Your task to perform on an android device: create a new album in the google photos Image 0: 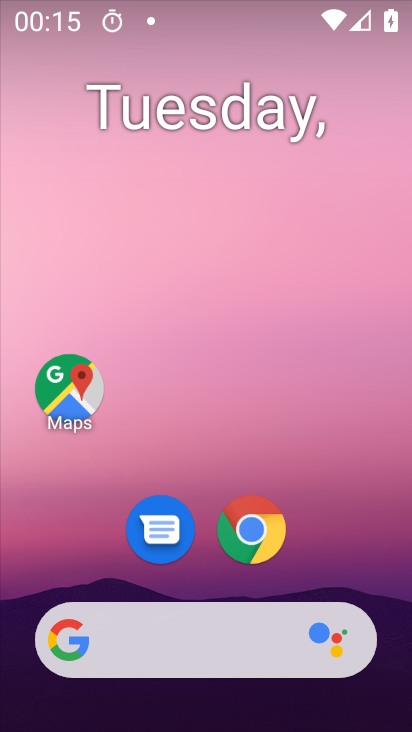
Step 0: drag from (398, 579) to (365, 68)
Your task to perform on an android device: create a new album in the google photos Image 1: 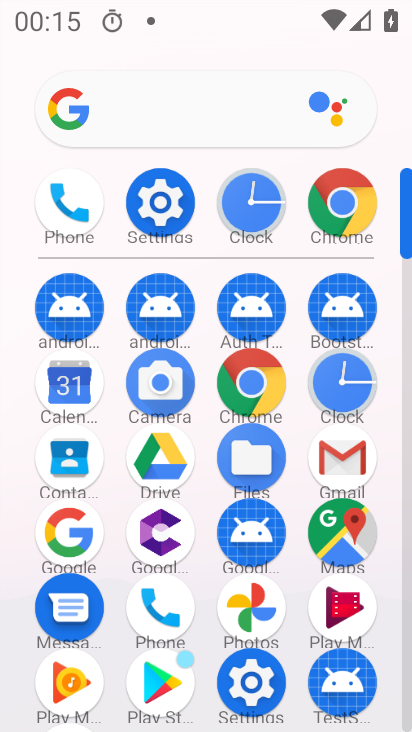
Step 1: click (269, 607)
Your task to perform on an android device: create a new album in the google photos Image 2: 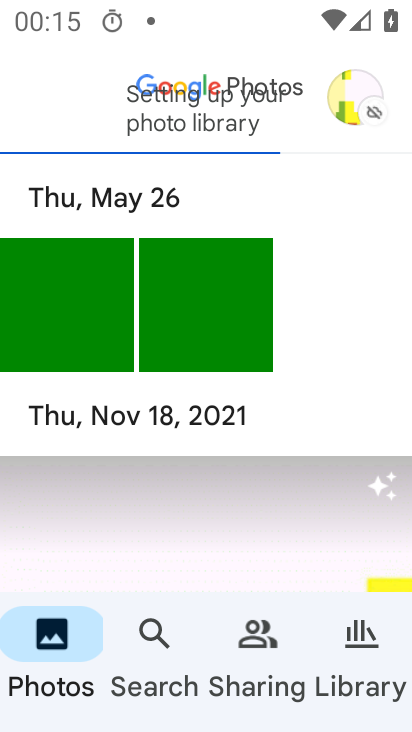
Step 2: click (152, 293)
Your task to perform on an android device: create a new album in the google photos Image 3: 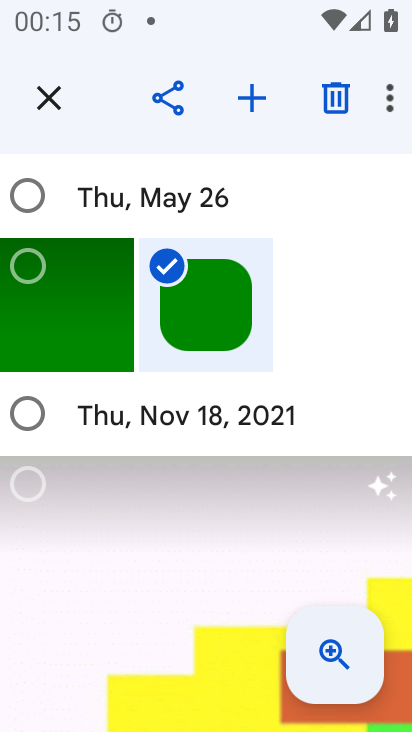
Step 3: click (56, 336)
Your task to perform on an android device: create a new album in the google photos Image 4: 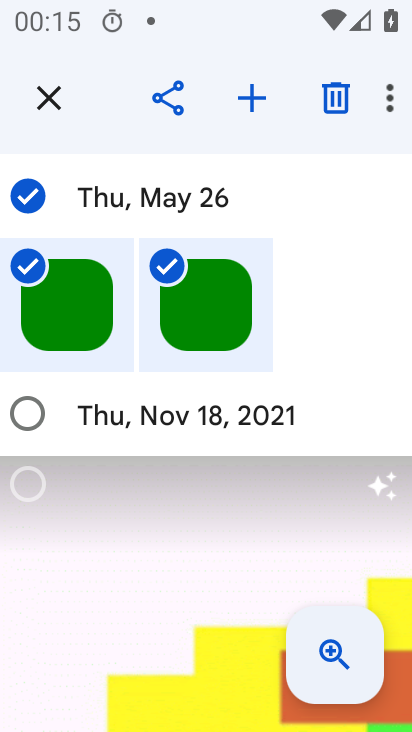
Step 4: click (259, 104)
Your task to perform on an android device: create a new album in the google photos Image 5: 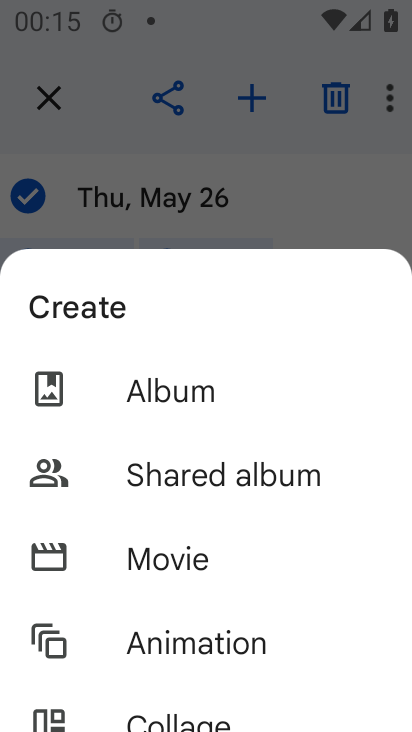
Step 5: click (112, 407)
Your task to perform on an android device: create a new album in the google photos Image 6: 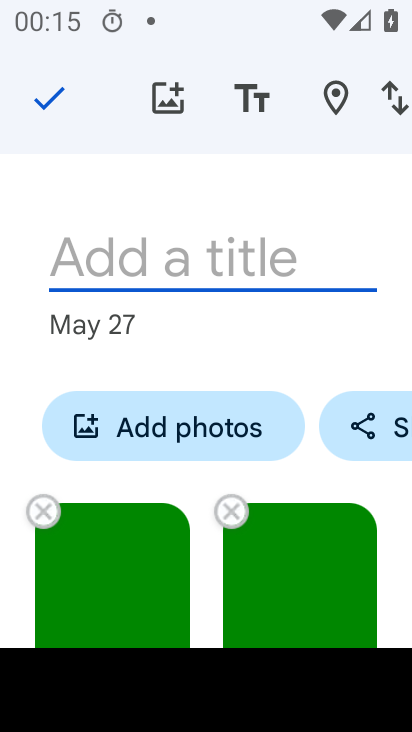
Step 6: type "gh"
Your task to perform on an android device: create a new album in the google photos Image 7: 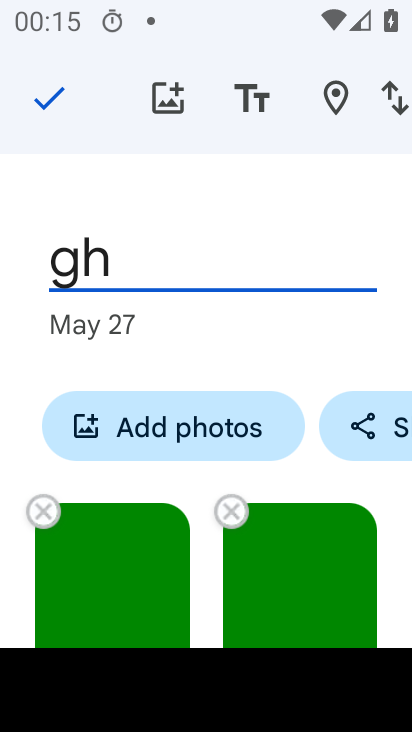
Step 7: click (59, 78)
Your task to perform on an android device: create a new album in the google photos Image 8: 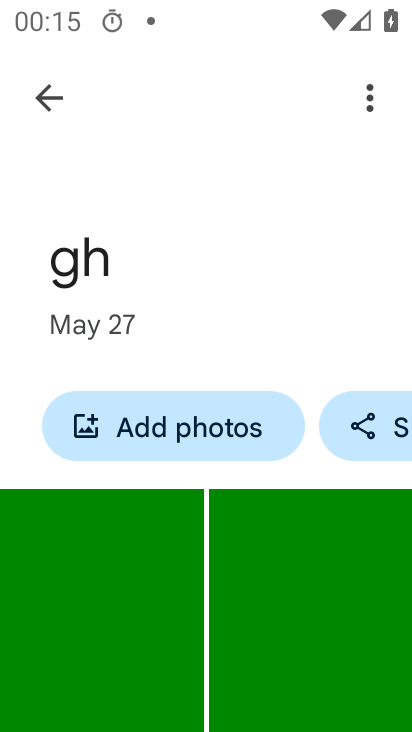
Step 8: task complete